Your task to perform on an android device: Show the shopping cart on target. Add "energizer triple a" to the cart on target, then select checkout. Image 0: 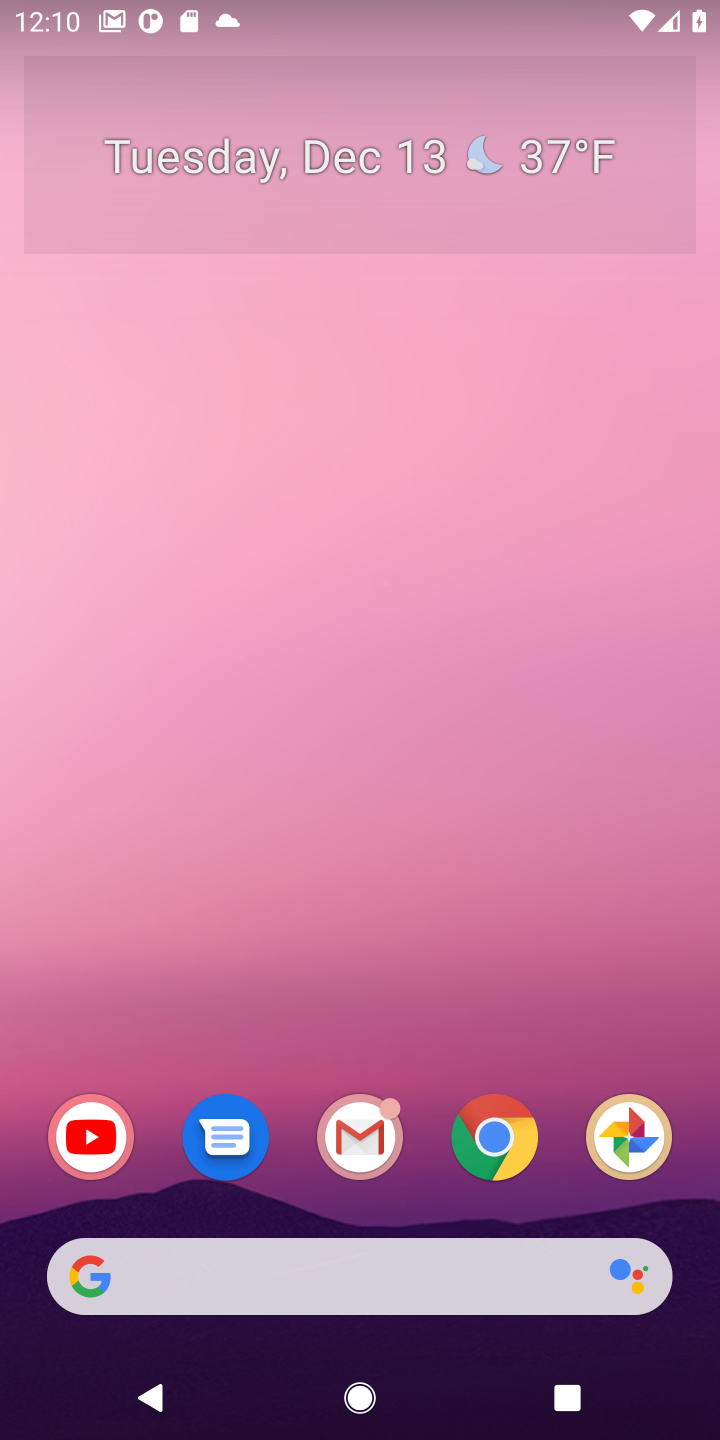
Step 0: task complete